Your task to perform on an android device: set the stopwatch Image 0: 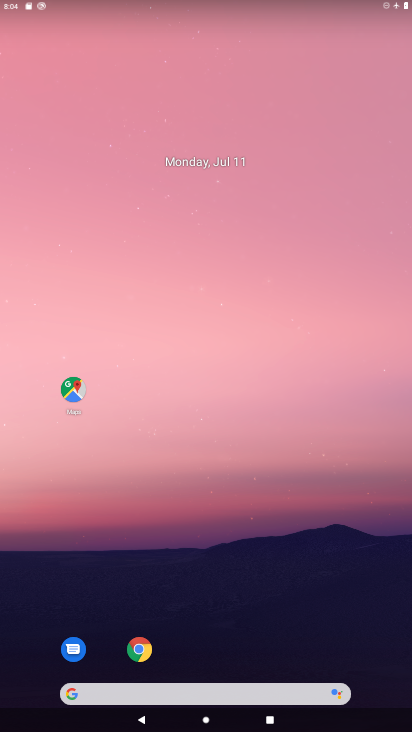
Step 0: drag from (198, 700) to (238, 159)
Your task to perform on an android device: set the stopwatch Image 1: 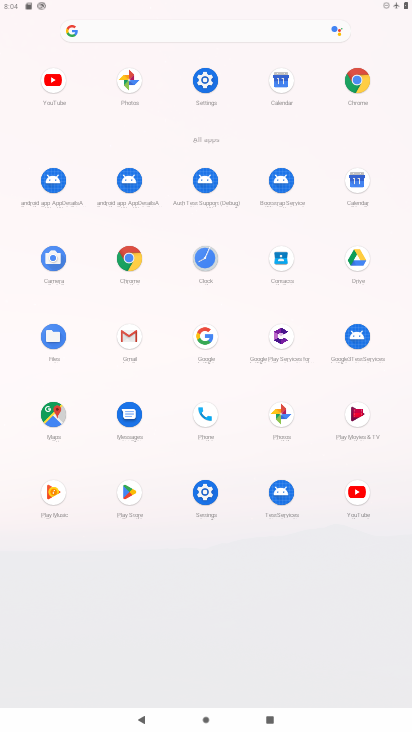
Step 1: click (208, 260)
Your task to perform on an android device: set the stopwatch Image 2: 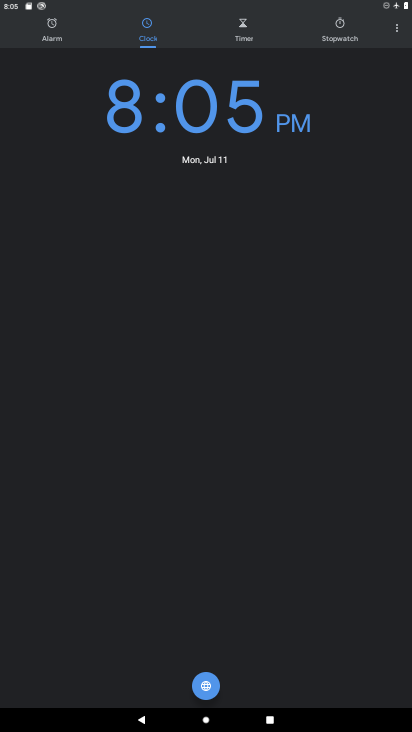
Step 2: click (341, 26)
Your task to perform on an android device: set the stopwatch Image 3: 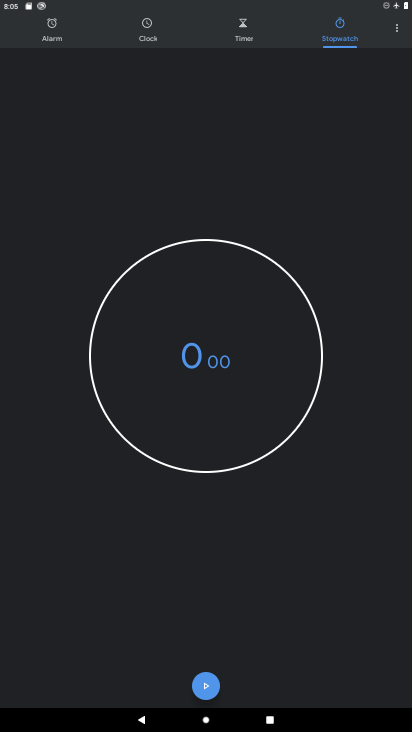
Step 3: click (207, 687)
Your task to perform on an android device: set the stopwatch Image 4: 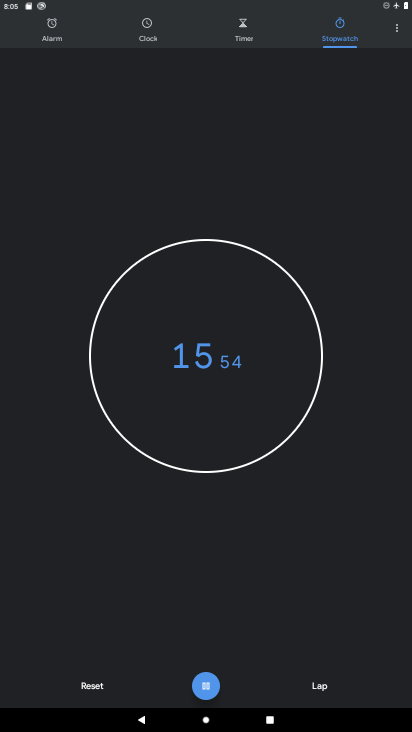
Step 4: click (216, 689)
Your task to perform on an android device: set the stopwatch Image 5: 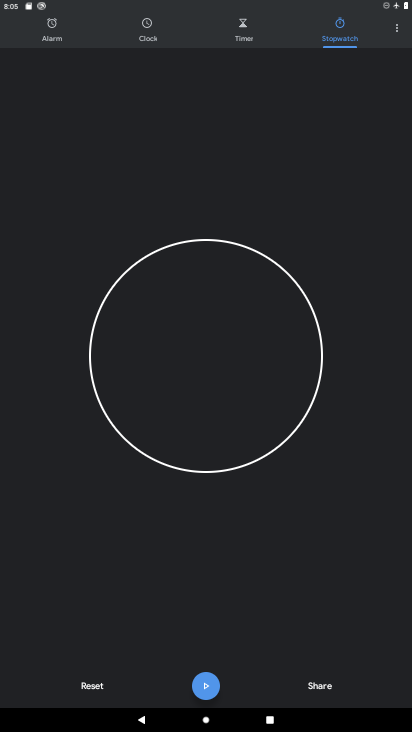
Step 5: task complete